Your task to perform on an android device: open app "Skype" Image 0: 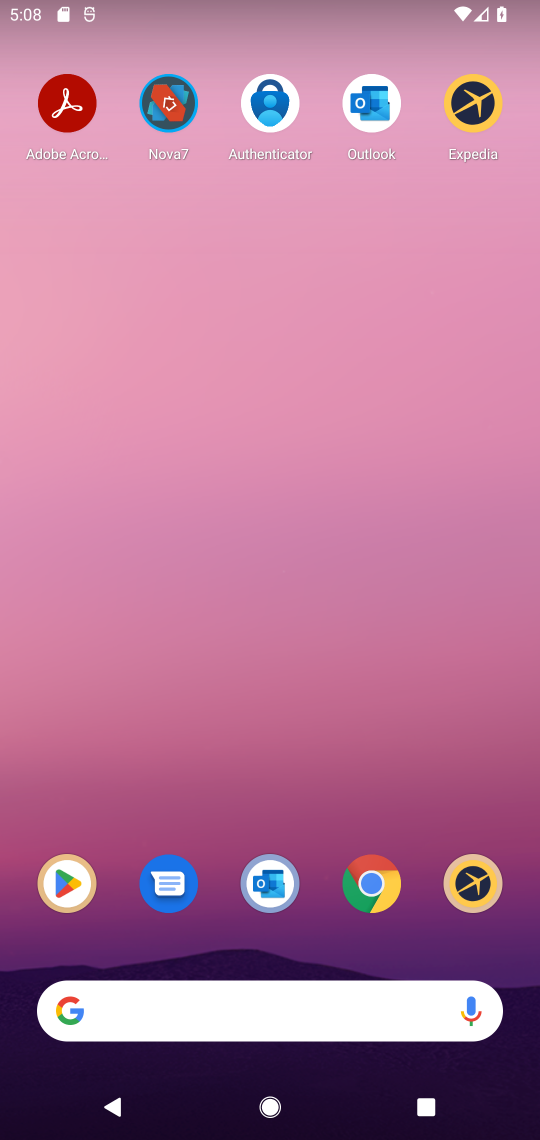
Step 0: drag from (340, 945) to (343, 722)
Your task to perform on an android device: open app "Skype" Image 1: 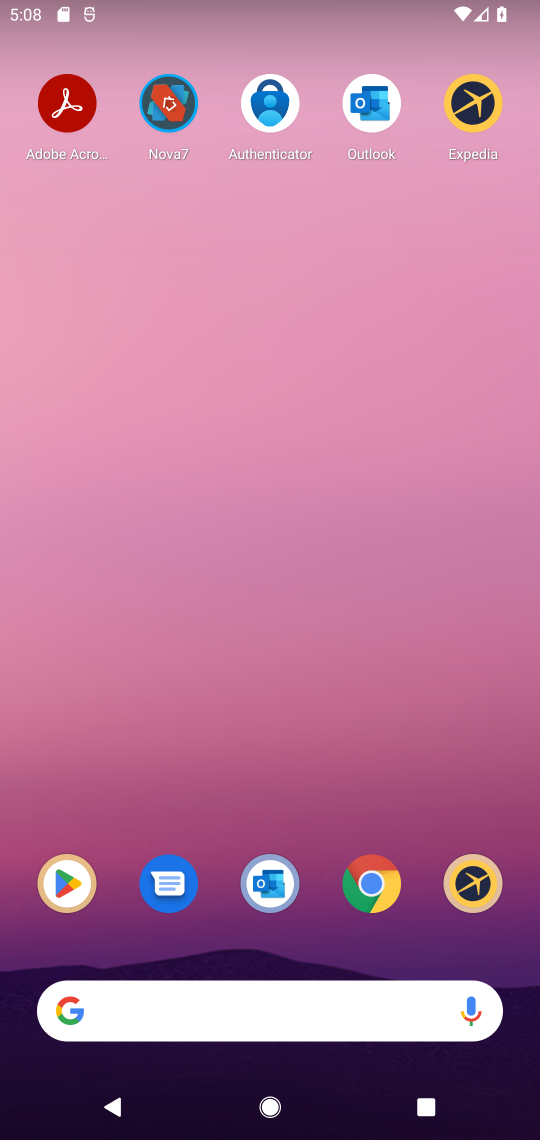
Step 1: drag from (270, 978) to (272, 316)
Your task to perform on an android device: open app "Skype" Image 2: 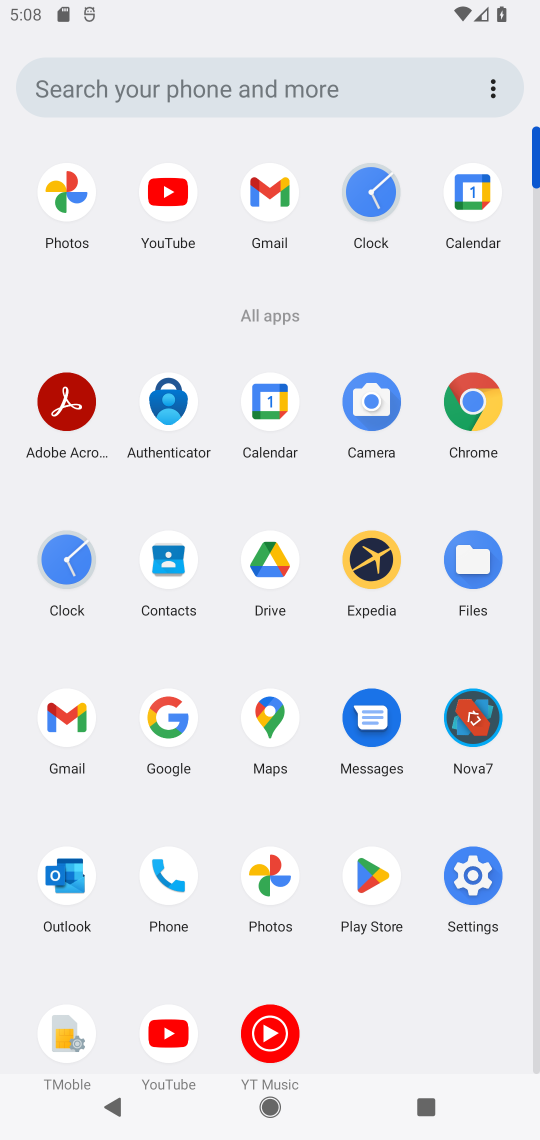
Step 2: click (371, 876)
Your task to perform on an android device: open app "Skype" Image 3: 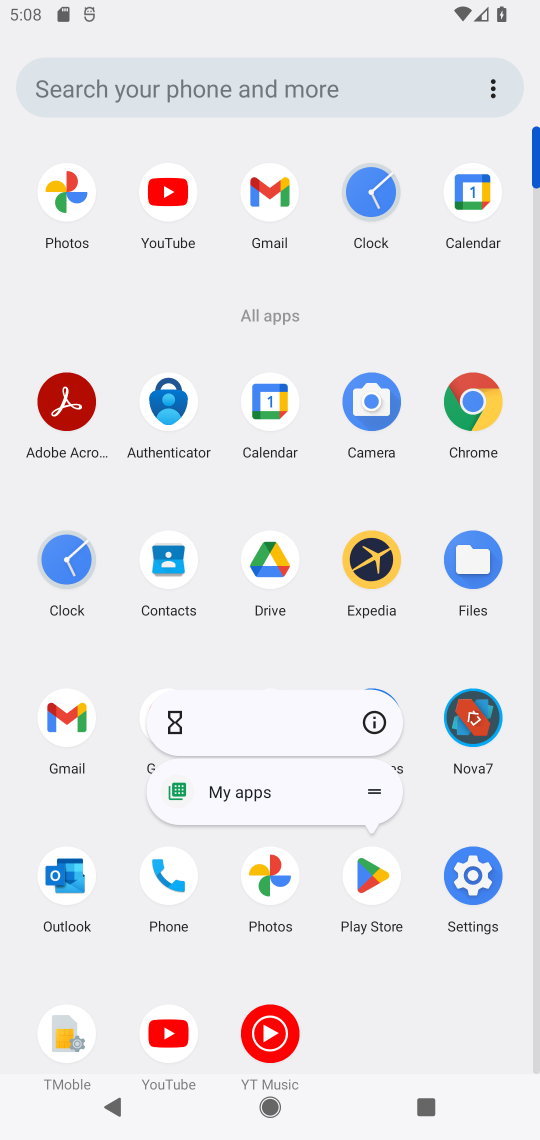
Step 3: click (371, 876)
Your task to perform on an android device: open app "Skype" Image 4: 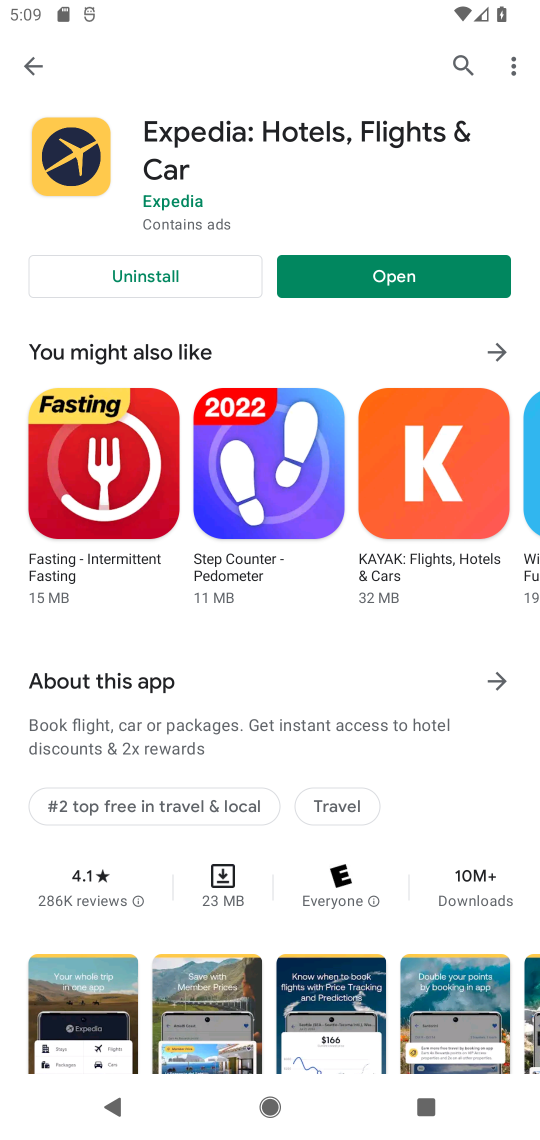
Step 4: click (16, 62)
Your task to perform on an android device: open app "Skype" Image 5: 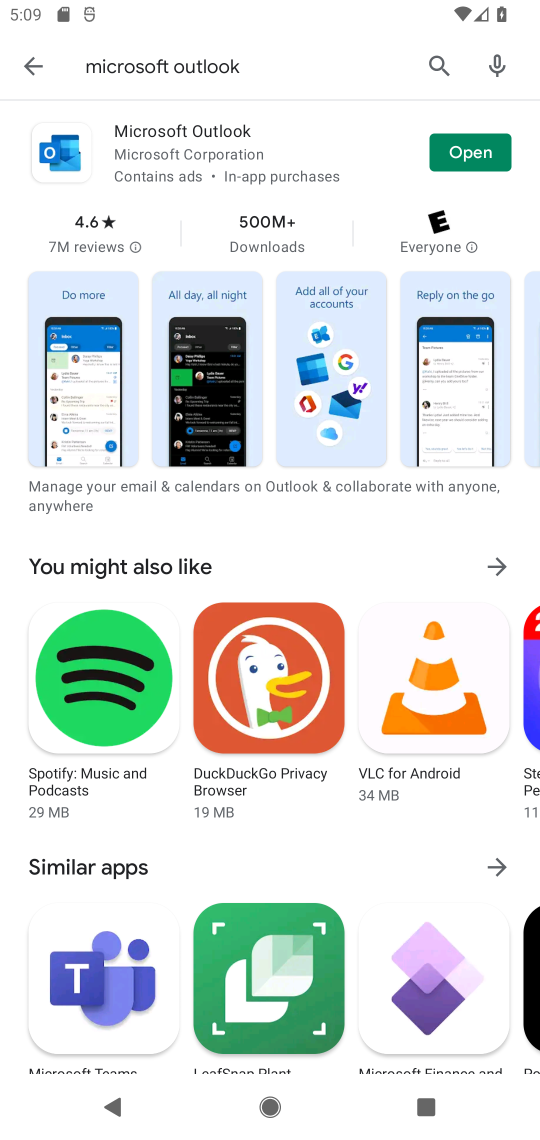
Step 5: click (23, 50)
Your task to perform on an android device: open app "Skype" Image 6: 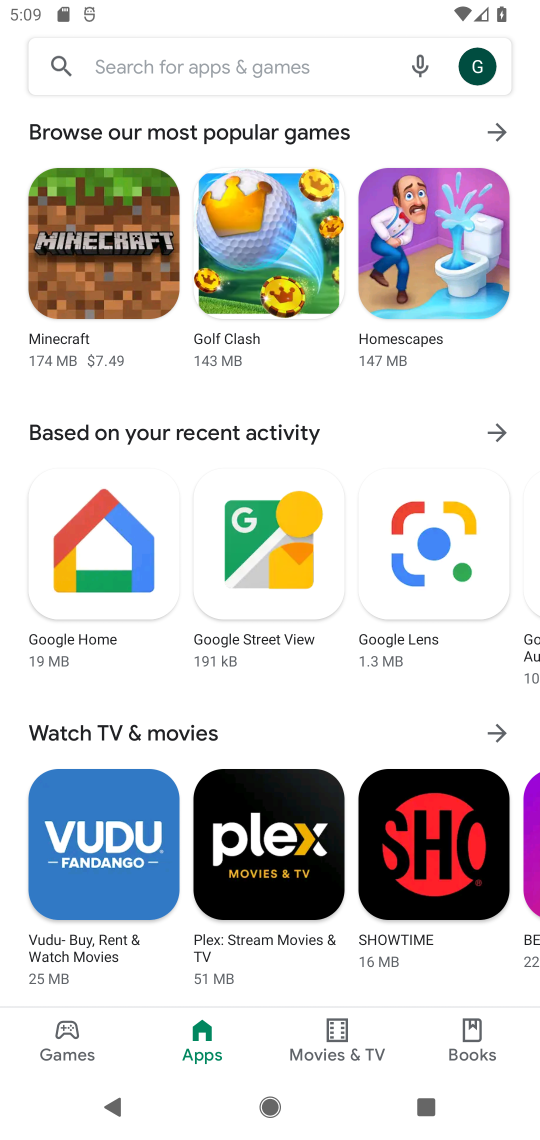
Step 6: click (181, 67)
Your task to perform on an android device: open app "Skype" Image 7: 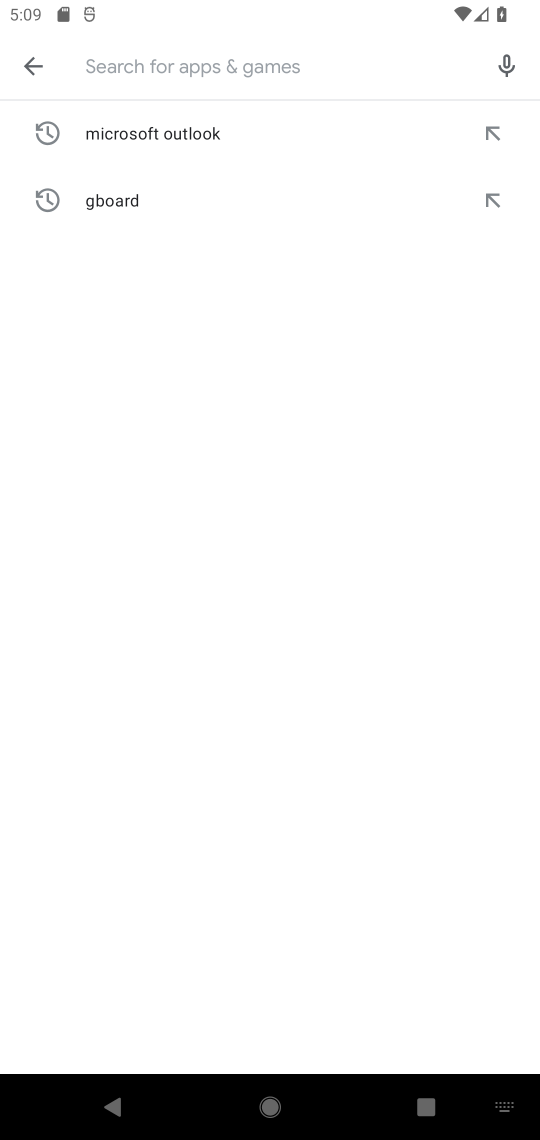
Step 7: type "Skype"
Your task to perform on an android device: open app "Skype" Image 8: 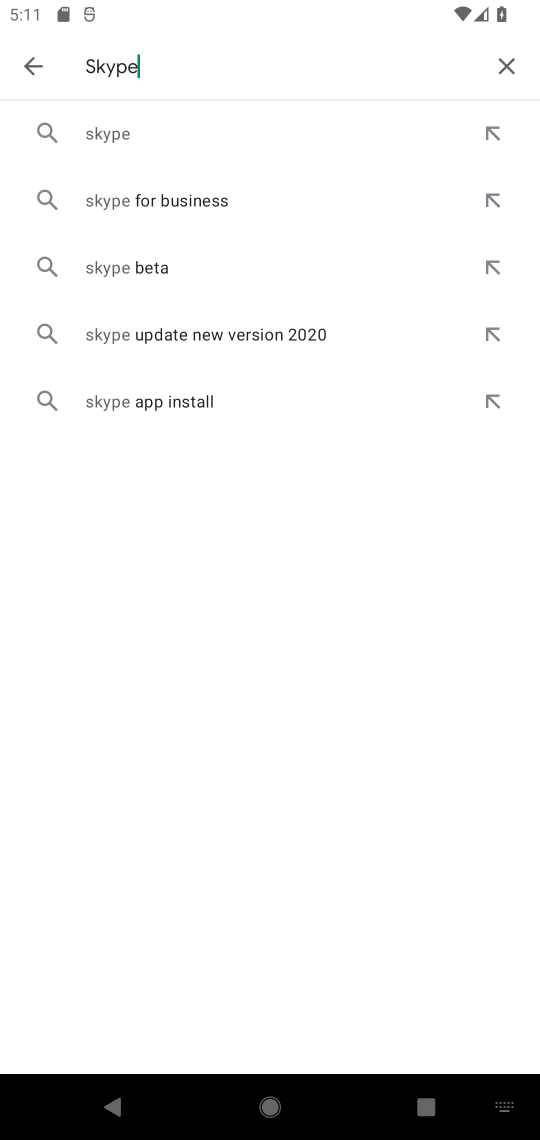
Step 8: click (142, 137)
Your task to perform on an android device: open app "Skype" Image 9: 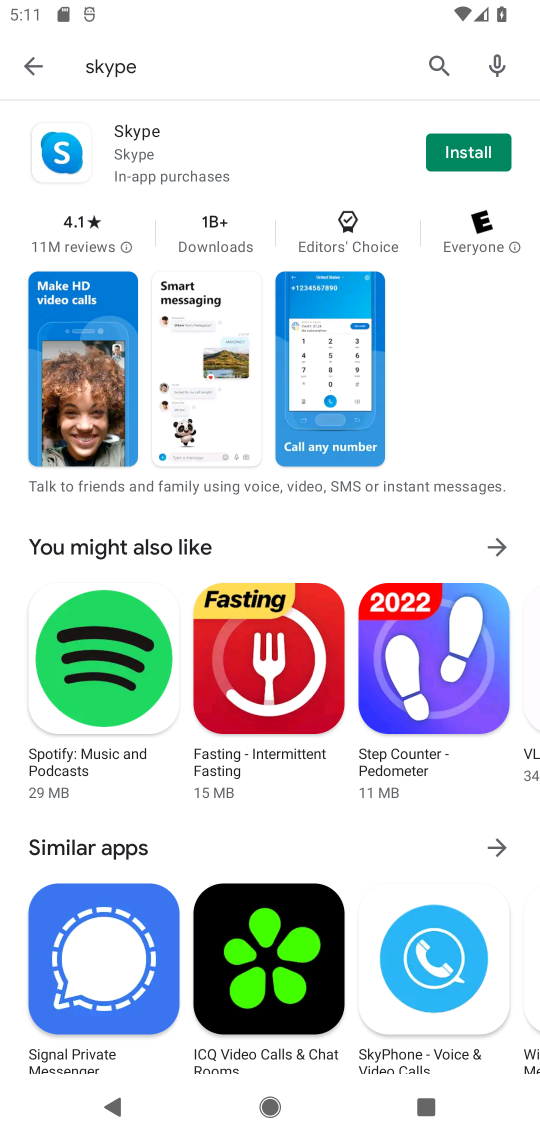
Step 9: click (441, 154)
Your task to perform on an android device: open app "Skype" Image 10: 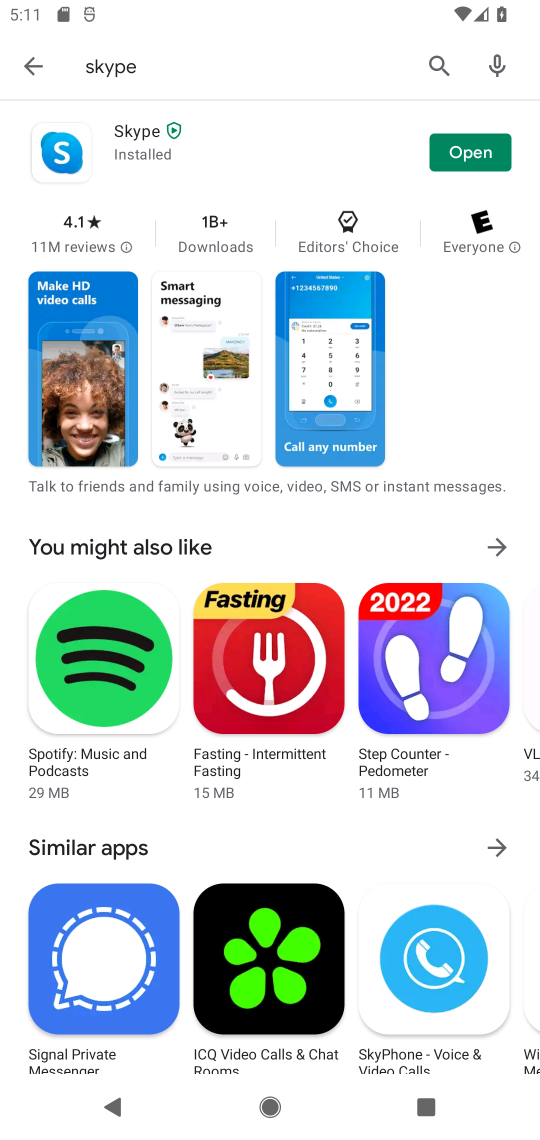
Step 10: click (471, 150)
Your task to perform on an android device: open app "Skype" Image 11: 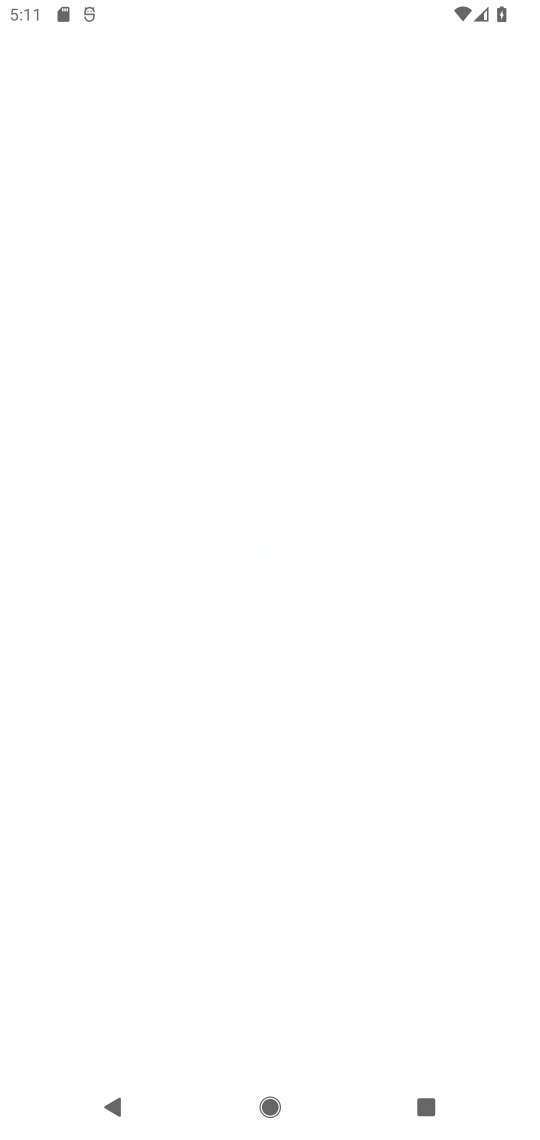
Step 11: task complete